Your task to perform on an android device: Open the map Image 0: 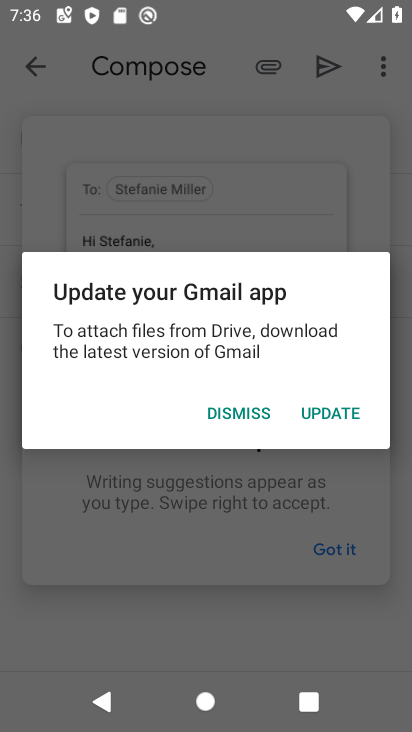
Step 0: press home button
Your task to perform on an android device: Open the map Image 1: 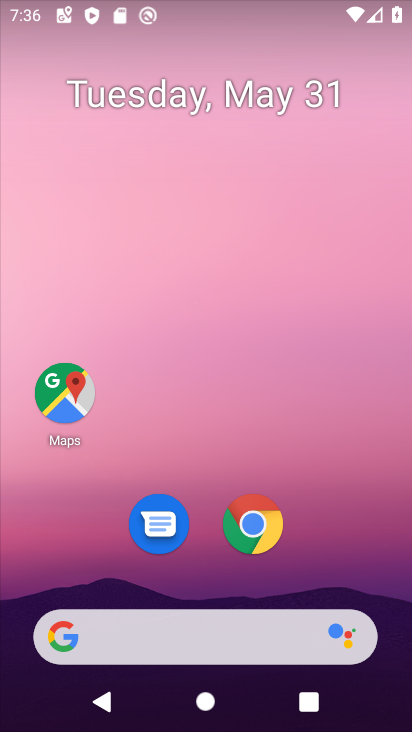
Step 1: click (67, 396)
Your task to perform on an android device: Open the map Image 2: 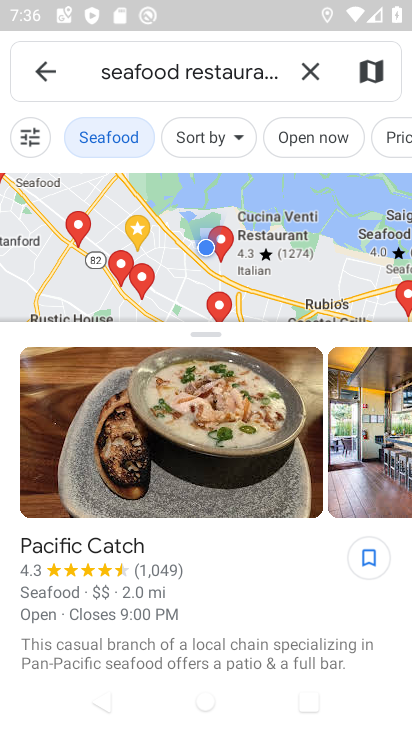
Step 2: task complete